Your task to perform on an android device: check out phone information Image 0: 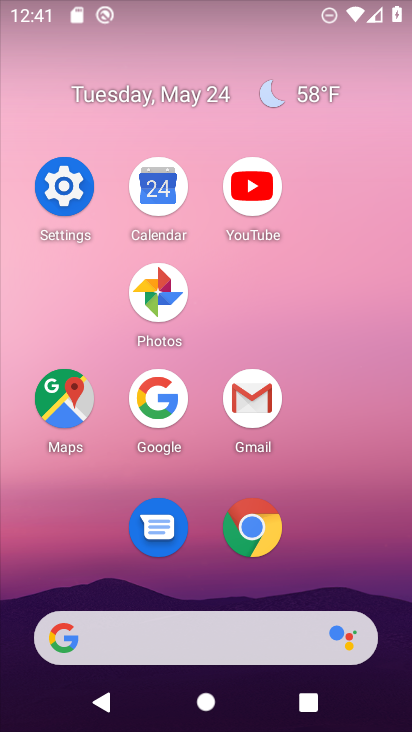
Step 0: click (81, 197)
Your task to perform on an android device: check out phone information Image 1: 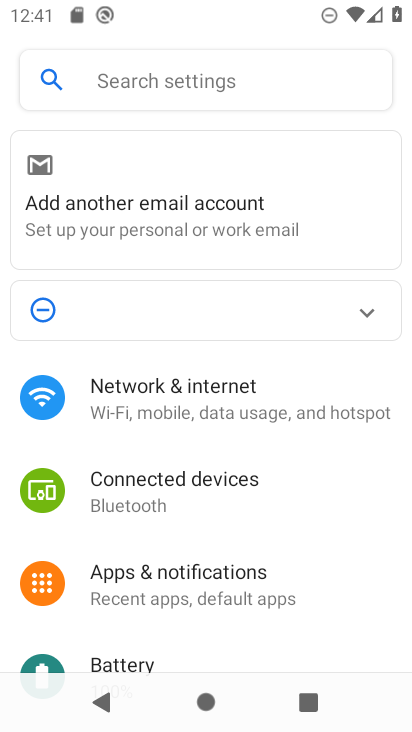
Step 1: drag from (325, 605) to (254, 52)
Your task to perform on an android device: check out phone information Image 2: 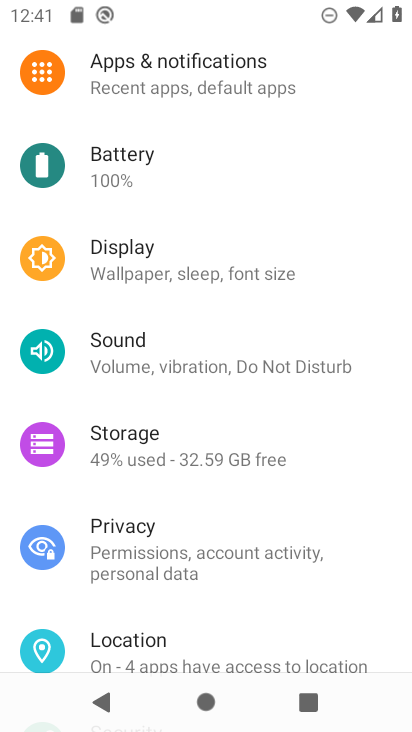
Step 2: drag from (222, 559) to (252, 152)
Your task to perform on an android device: check out phone information Image 3: 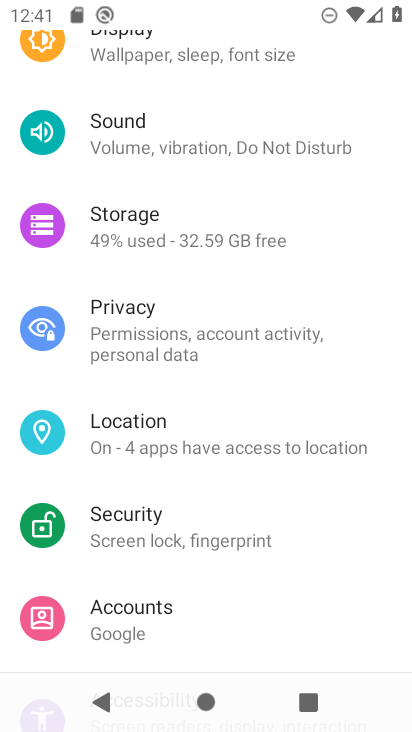
Step 3: drag from (251, 667) to (245, 302)
Your task to perform on an android device: check out phone information Image 4: 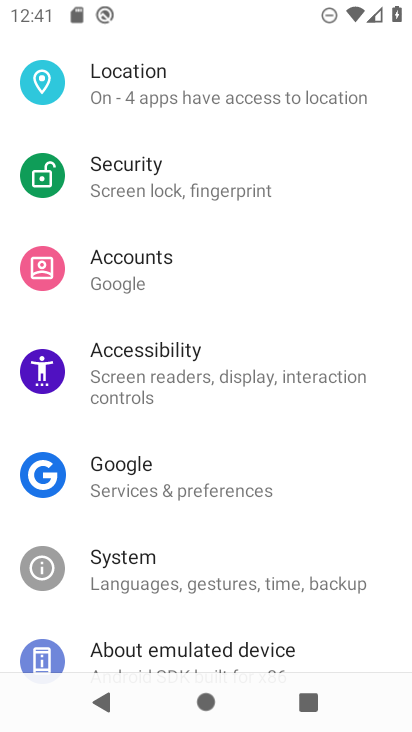
Step 4: drag from (244, 568) to (236, 230)
Your task to perform on an android device: check out phone information Image 5: 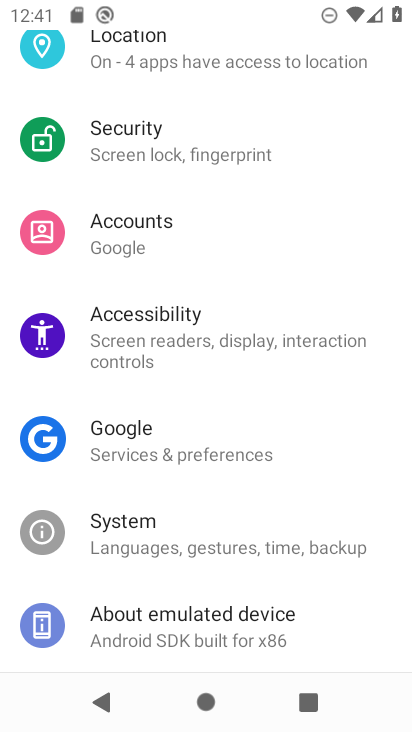
Step 5: click (215, 613)
Your task to perform on an android device: check out phone information Image 6: 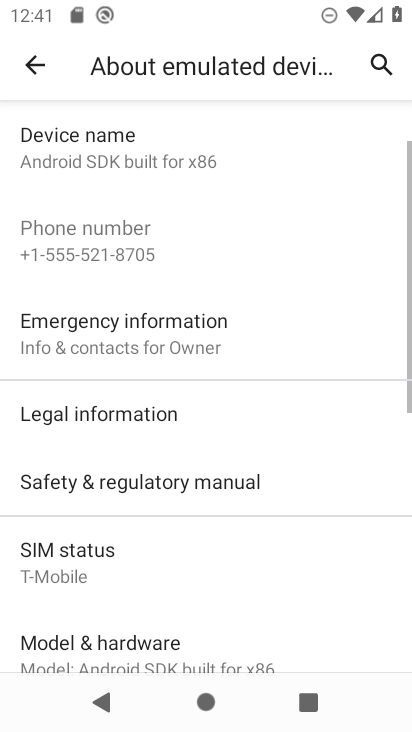
Step 6: drag from (242, 561) to (239, 221)
Your task to perform on an android device: check out phone information Image 7: 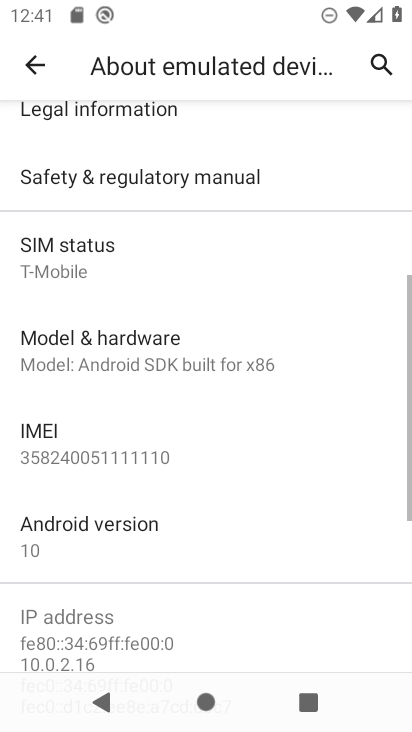
Step 7: click (189, 343)
Your task to perform on an android device: check out phone information Image 8: 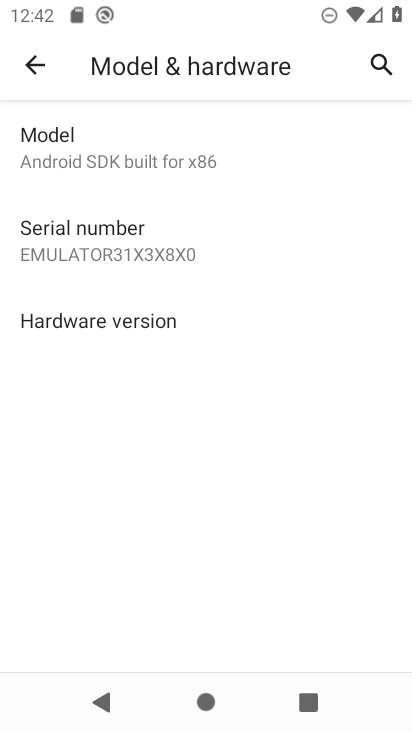
Step 8: task complete